Your task to perform on an android device: delete a single message in the gmail app Image 0: 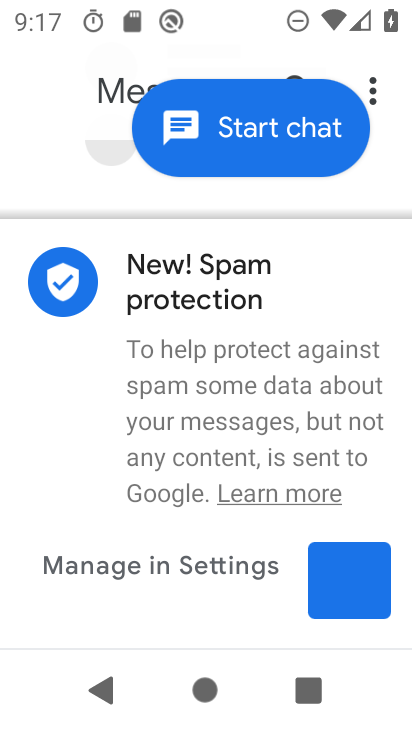
Step 0: press home button
Your task to perform on an android device: delete a single message in the gmail app Image 1: 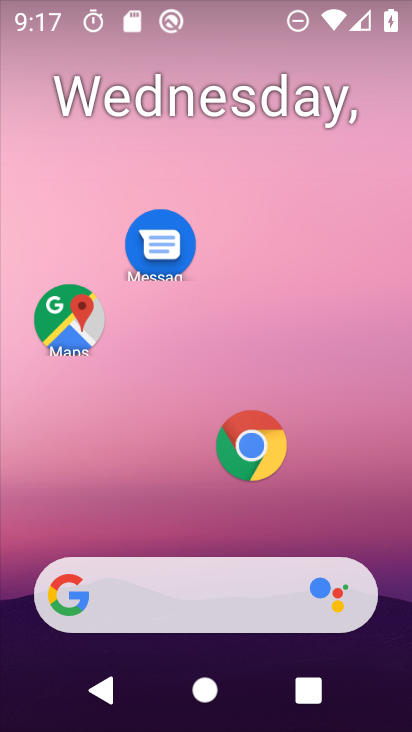
Step 1: drag from (199, 509) to (235, 136)
Your task to perform on an android device: delete a single message in the gmail app Image 2: 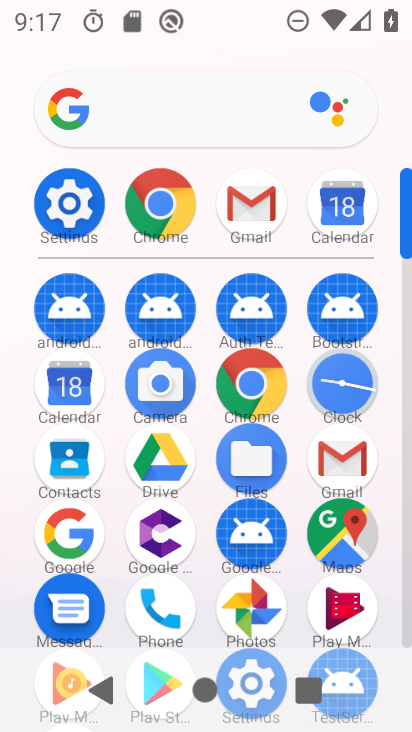
Step 2: click (239, 197)
Your task to perform on an android device: delete a single message in the gmail app Image 3: 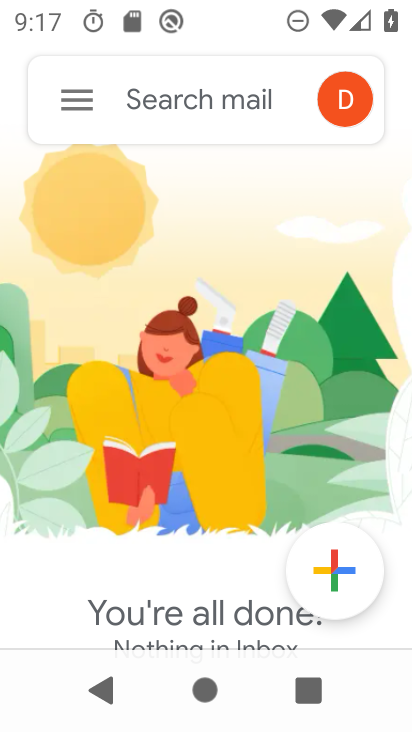
Step 3: task complete